Your task to perform on an android device: toggle wifi Image 0: 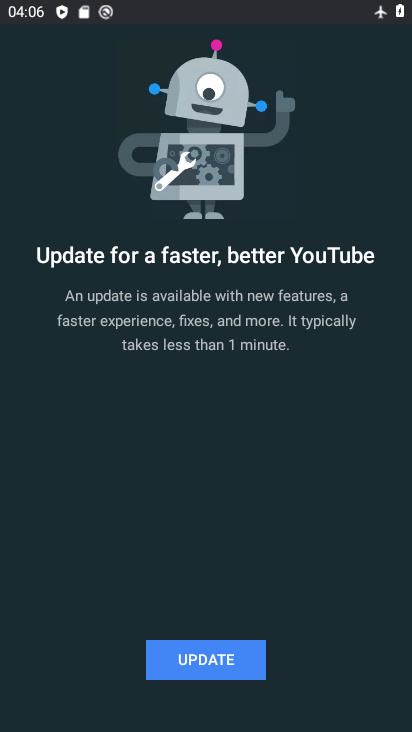
Step 0: press home button
Your task to perform on an android device: toggle wifi Image 1: 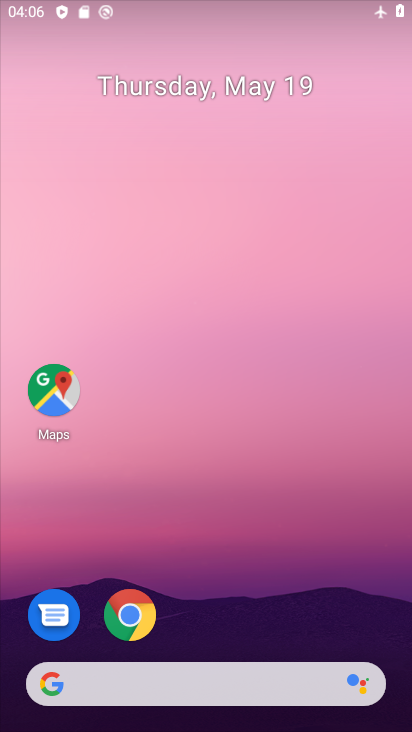
Step 1: drag from (222, 615) to (300, 3)
Your task to perform on an android device: toggle wifi Image 2: 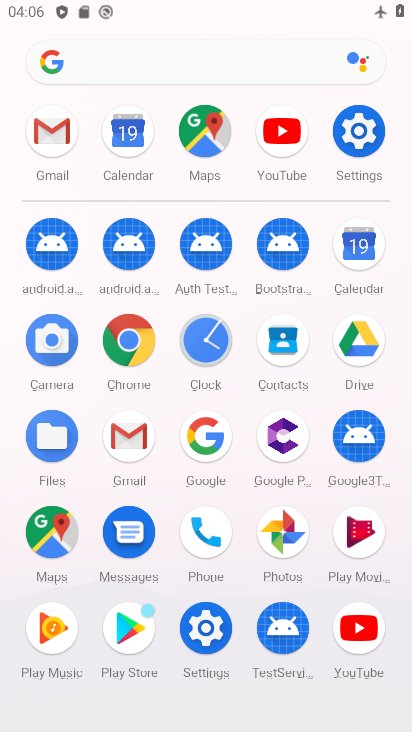
Step 2: click (347, 131)
Your task to perform on an android device: toggle wifi Image 3: 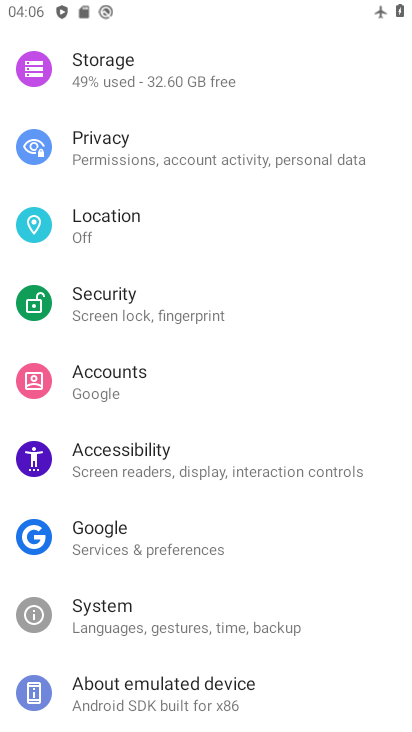
Step 3: drag from (165, 113) to (143, 574)
Your task to perform on an android device: toggle wifi Image 4: 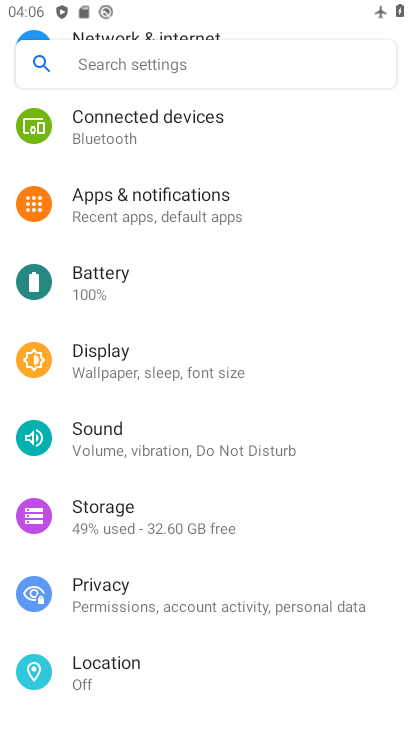
Step 4: drag from (228, 178) to (217, 519)
Your task to perform on an android device: toggle wifi Image 5: 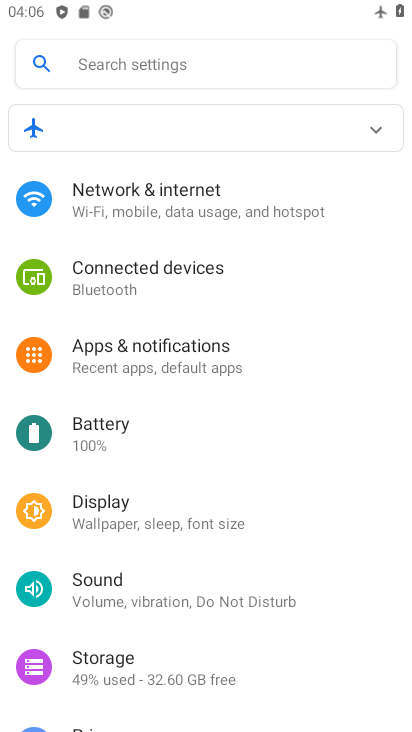
Step 5: click (164, 204)
Your task to perform on an android device: toggle wifi Image 6: 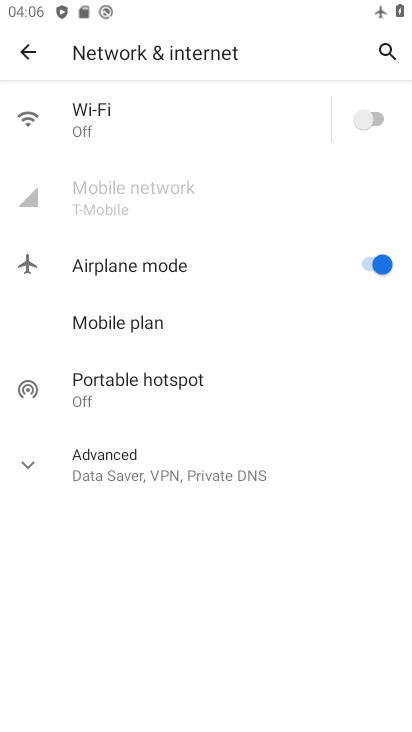
Step 6: click (355, 115)
Your task to perform on an android device: toggle wifi Image 7: 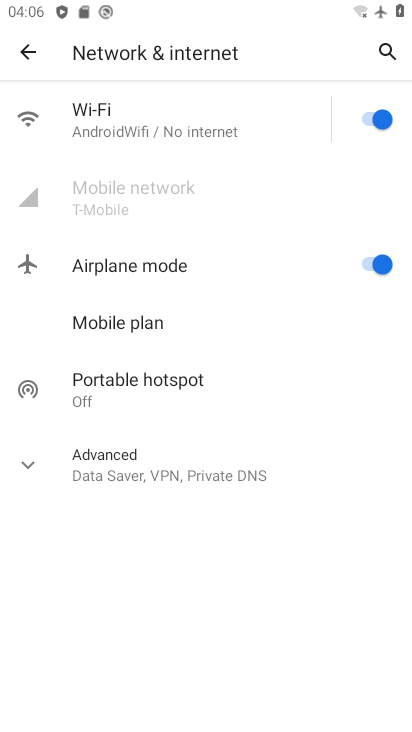
Step 7: task complete